Your task to perform on an android device: open a new tab in the chrome app Image 0: 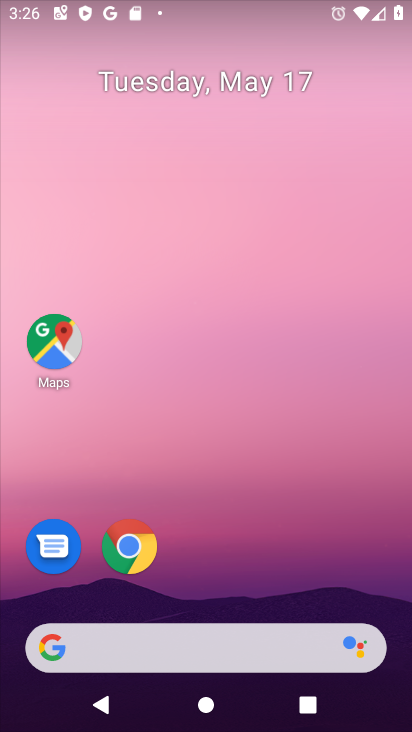
Step 0: click (126, 534)
Your task to perform on an android device: open a new tab in the chrome app Image 1: 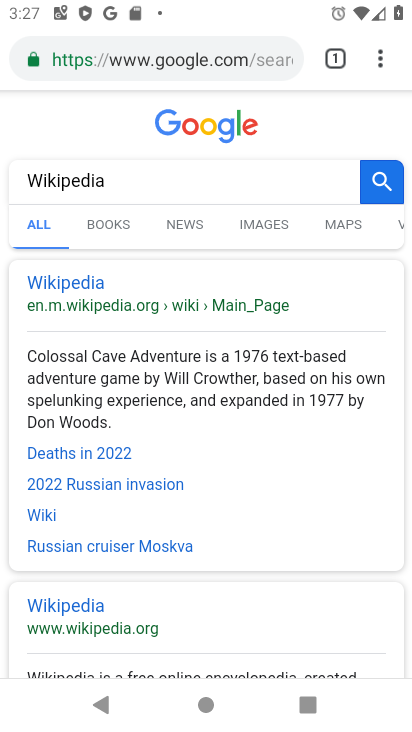
Step 1: click (381, 49)
Your task to perform on an android device: open a new tab in the chrome app Image 2: 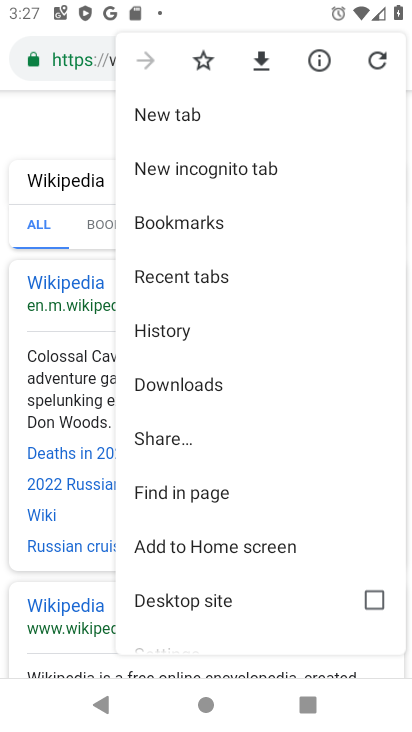
Step 2: click (164, 109)
Your task to perform on an android device: open a new tab in the chrome app Image 3: 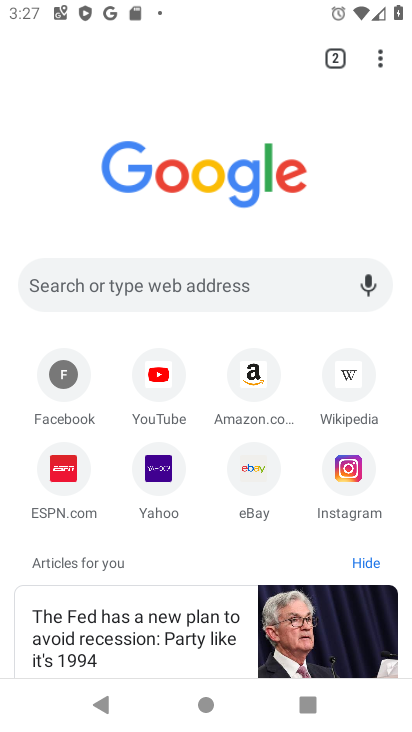
Step 3: task complete